Your task to perform on an android device: turn smart compose on in the gmail app Image 0: 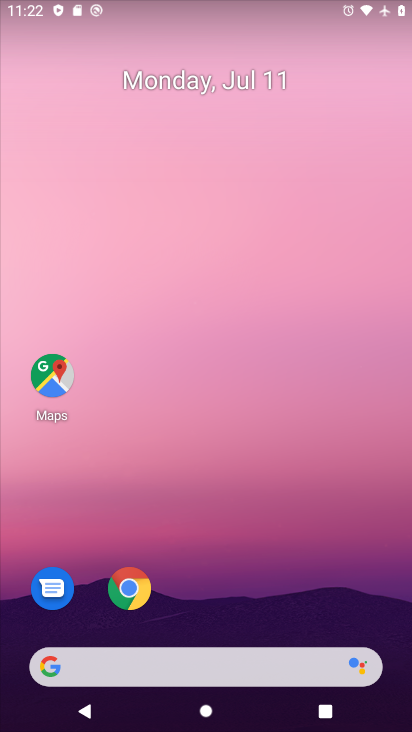
Step 0: drag from (197, 676) to (242, 142)
Your task to perform on an android device: turn smart compose on in the gmail app Image 1: 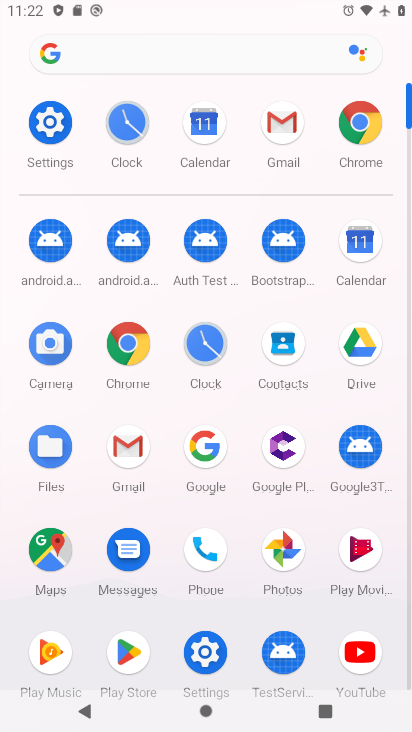
Step 1: click (278, 117)
Your task to perform on an android device: turn smart compose on in the gmail app Image 2: 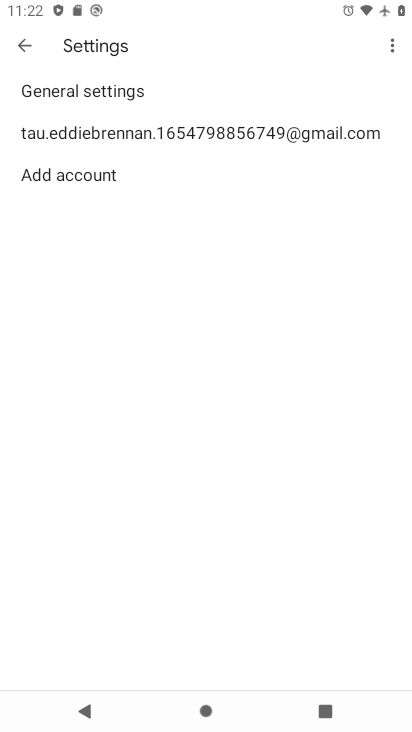
Step 2: click (264, 131)
Your task to perform on an android device: turn smart compose on in the gmail app Image 3: 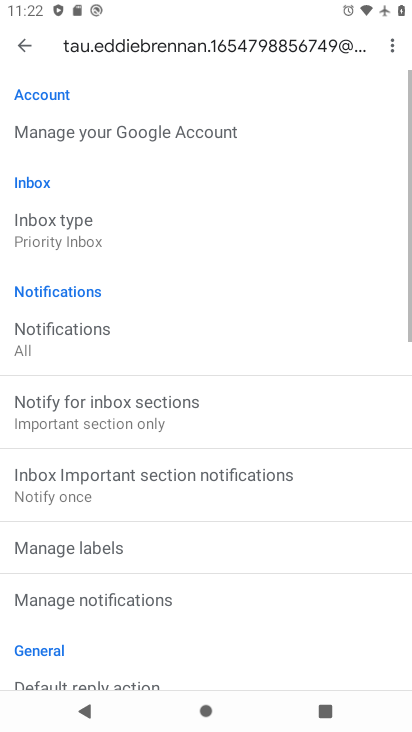
Step 3: task complete